Your task to perform on an android device: Show me productivity apps on the Play Store Image 0: 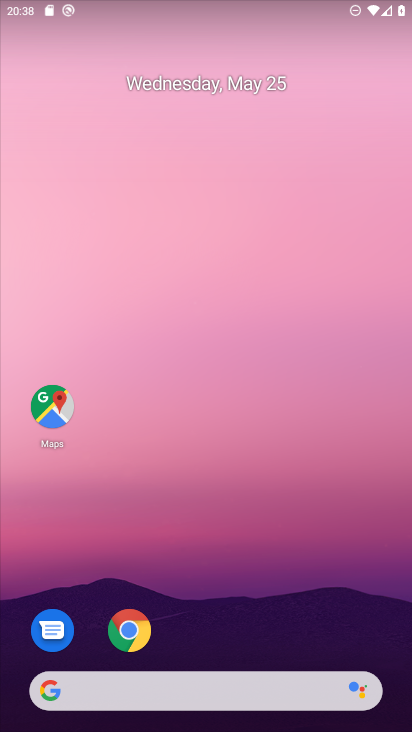
Step 0: drag from (263, 614) to (267, 58)
Your task to perform on an android device: Show me productivity apps on the Play Store Image 1: 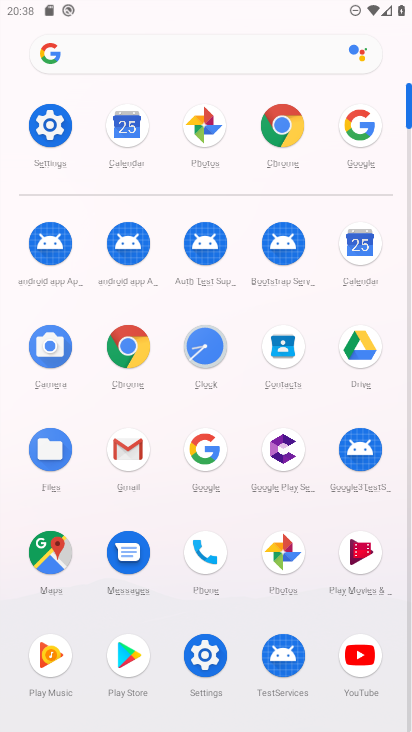
Step 1: click (127, 656)
Your task to perform on an android device: Show me productivity apps on the Play Store Image 2: 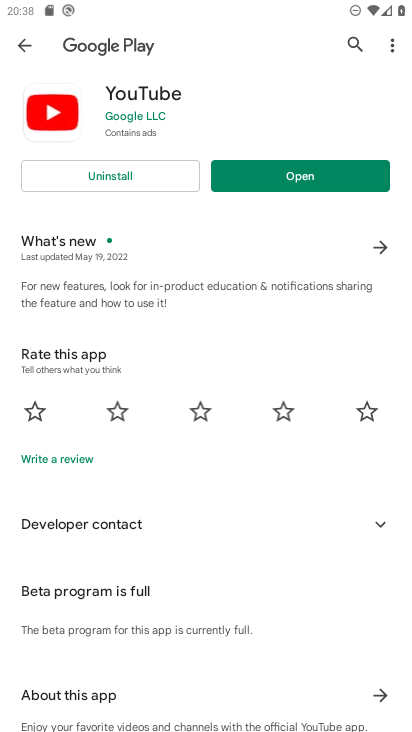
Step 2: press back button
Your task to perform on an android device: Show me productivity apps on the Play Store Image 3: 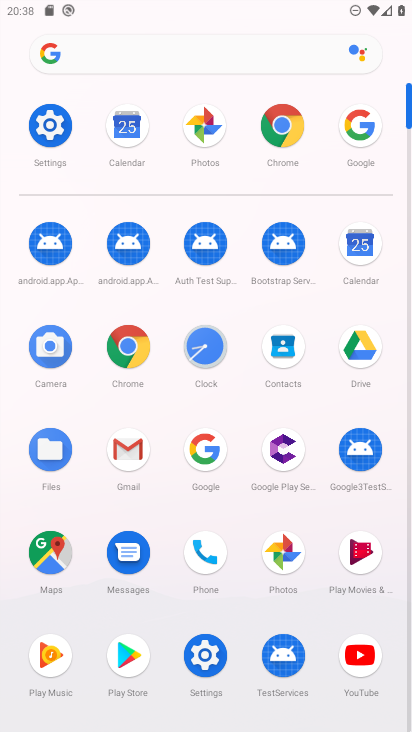
Step 3: click (115, 662)
Your task to perform on an android device: Show me productivity apps on the Play Store Image 4: 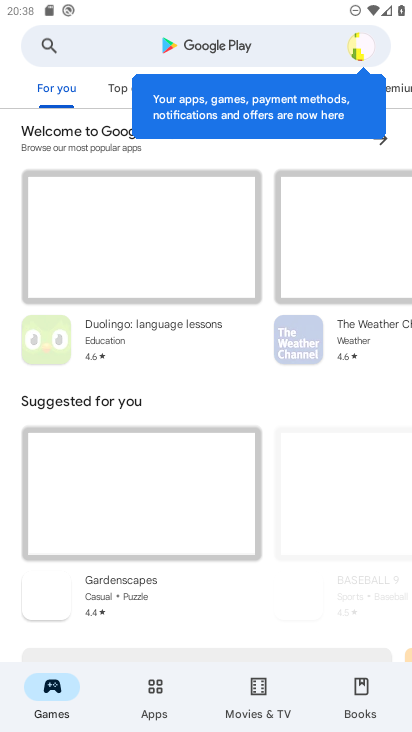
Step 4: click (161, 705)
Your task to perform on an android device: Show me productivity apps on the Play Store Image 5: 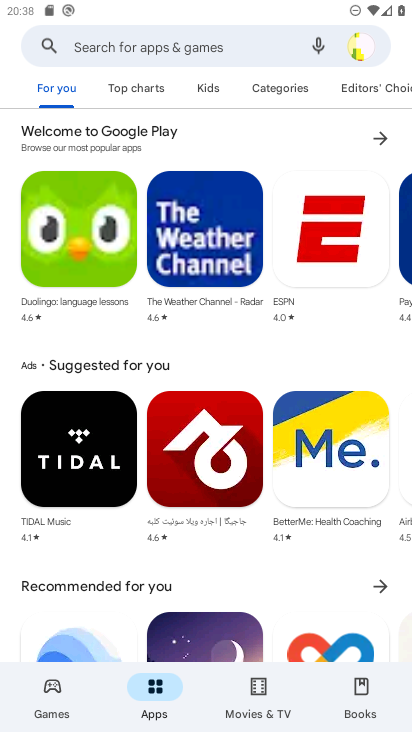
Step 5: click (294, 86)
Your task to perform on an android device: Show me productivity apps on the Play Store Image 6: 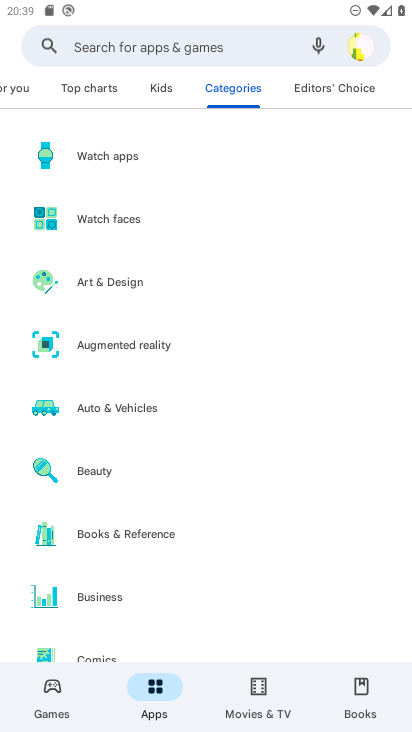
Step 6: drag from (308, 583) to (363, 0)
Your task to perform on an android device: Show me productivity apps on the Play Store Image 7: 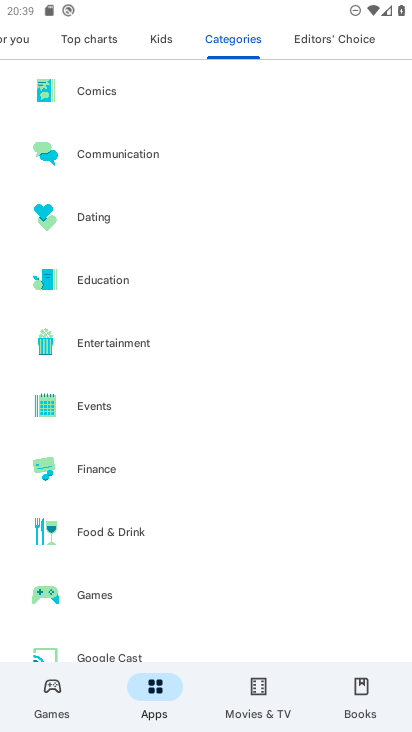
Step 7: drag from (289, 580) to (273, 36)
Your task to perform on an android device: Show me productivity apps on the Play Store Image 8: 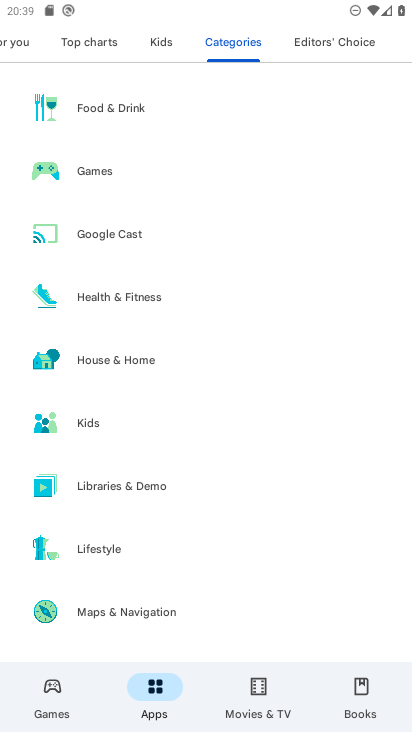
Step 8: drag from (248, 597) to (311, 11)
Your task to perform on an android device: Show me productivity apps on the Play Store Image 9: 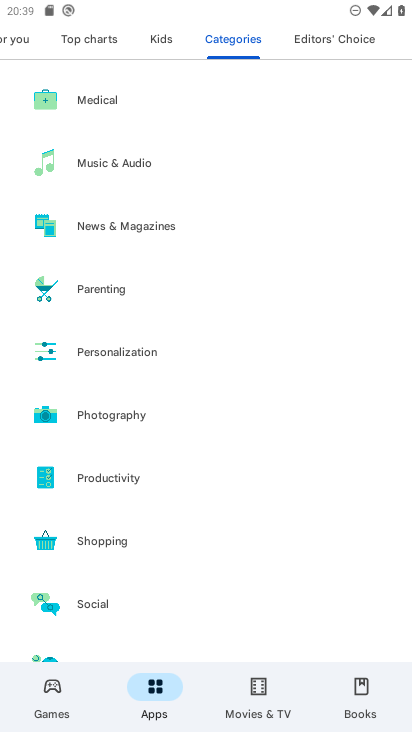
Step 9: click (121, 477)
Your task to perform on an android device: Show me productivity apps on the Play Store Image 10: 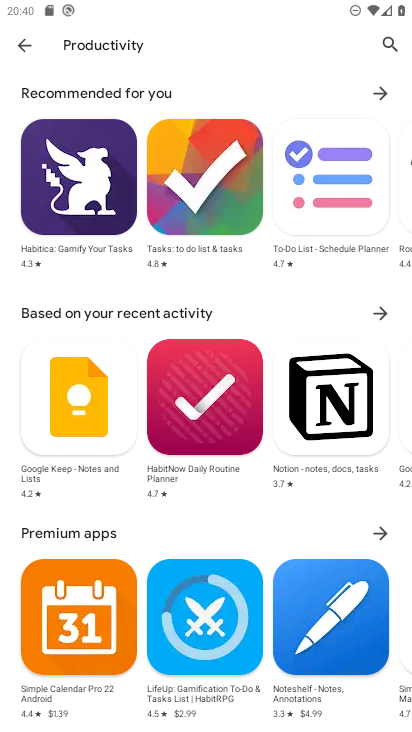
Step 10: task complete